Your task to perform on an android device: Show me recent news Image 0: 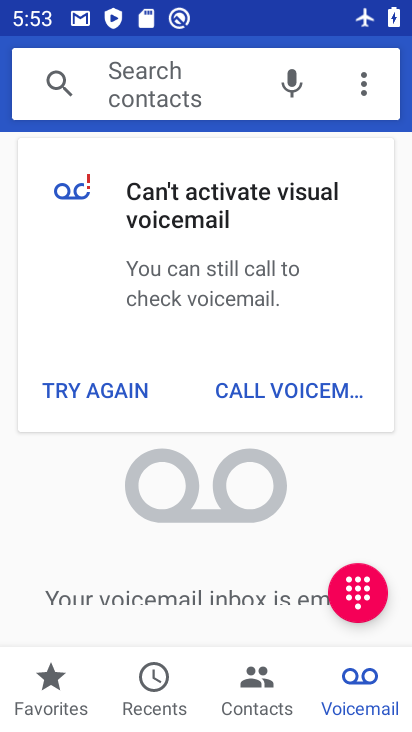
Step 0: press home button
Your task to perform on an android device: Show me recent news Image 1: 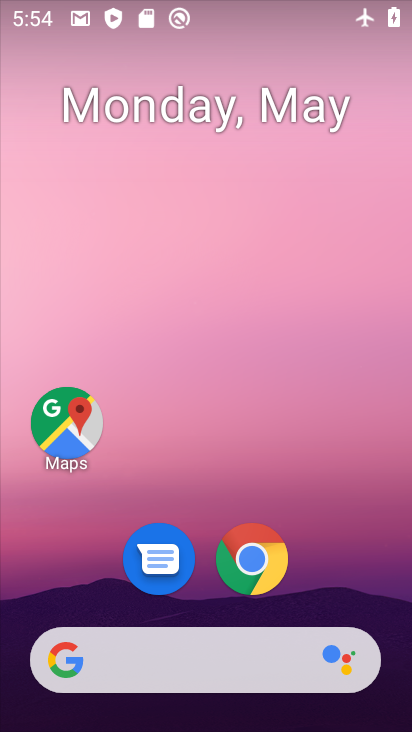
Step 1: task complete